Your task to perform on an android device: Open Wikipedia Image 0: 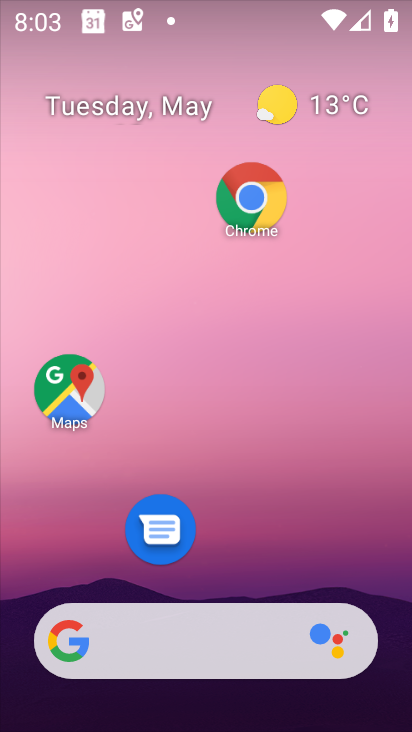
Step 0: drag from (342, 558) to (338, 337)
Your task to perform on an android device: Open Wikipedia Image 1: 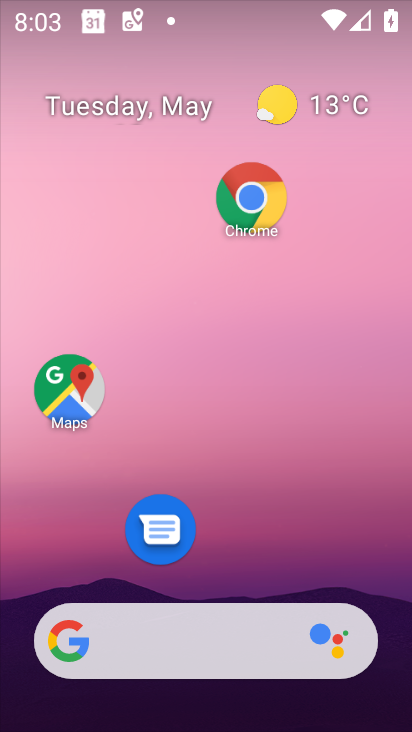
Step 1: drag from (256, 575) to (136, 12)
Your task to perform on an android device: Open Wikipedia Image 2: 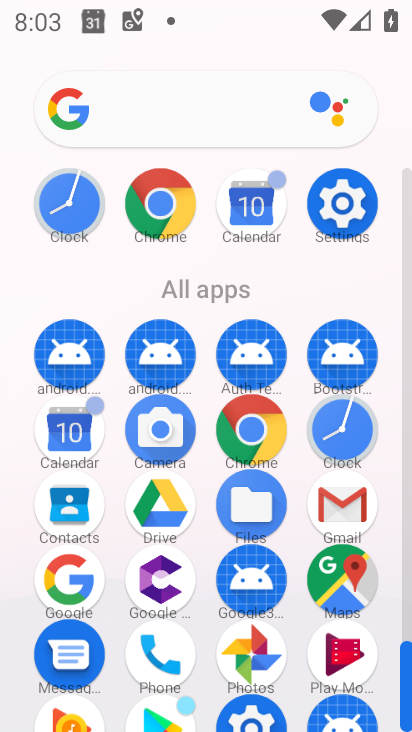
Step 2: click (321, 225)
Your task to perform on an android device: Open Wikipedia Image 3: 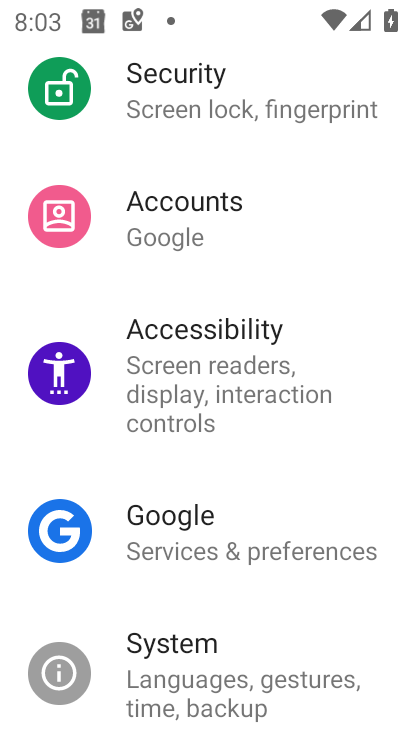
Step 3: press home button
Your task to perform on an android device: Open Wikipedia Image 4: 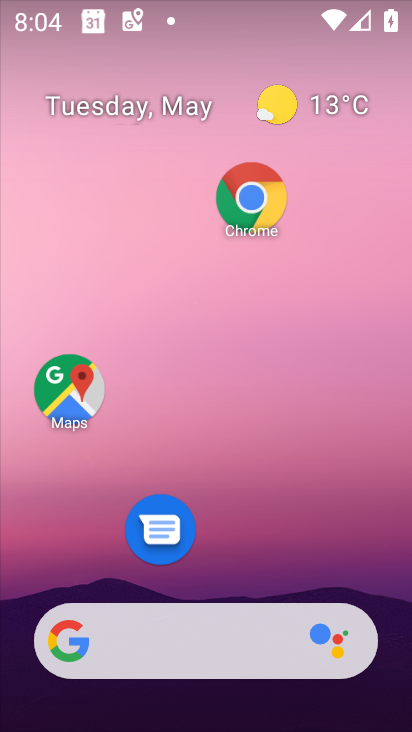
Step 4: click (272, 194)
Your task to perform on an android device: Open Wikipedia Image 5: 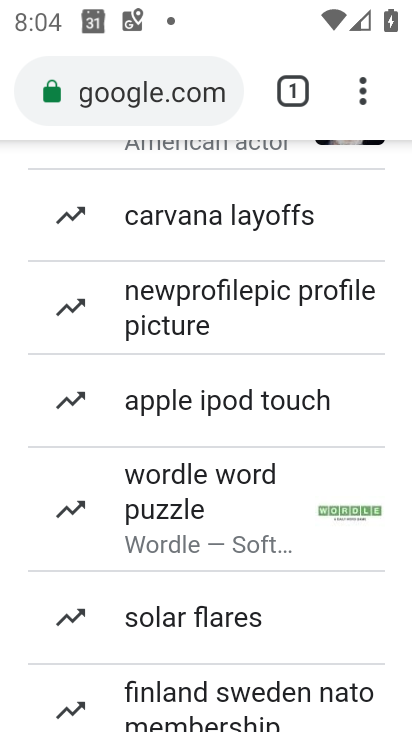
Step 5: click (186, 115)
Your task to perform on an android device: Open Wikipedia Image 6: 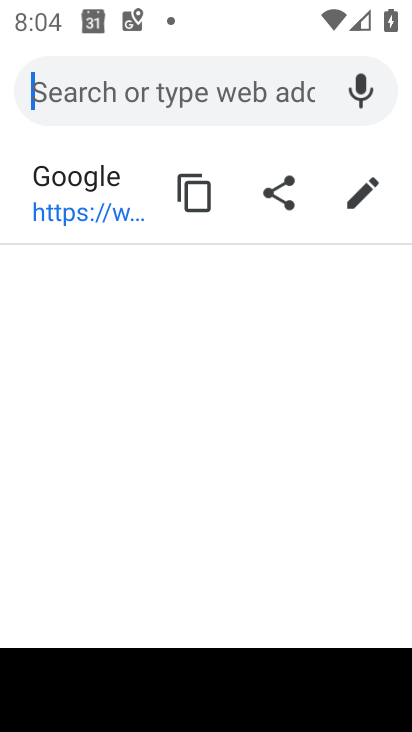
Step 6: type "wikipedia"
Your task to perform on an android device: Open Wikipedia Image 7: 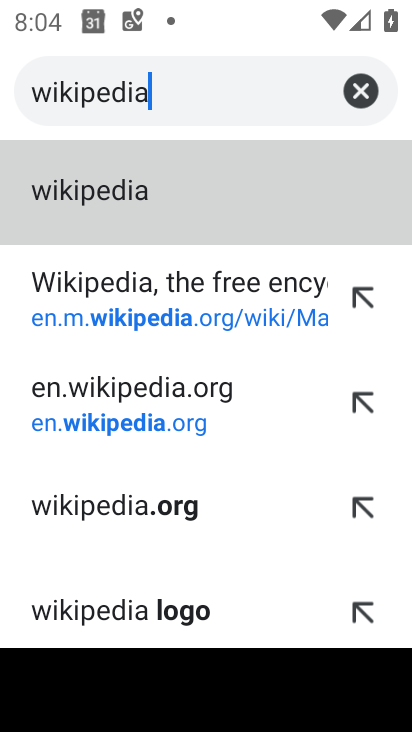
Step 7: click (98, 299)
Your task to perform on an android device: Open Wikipedia Image 8: 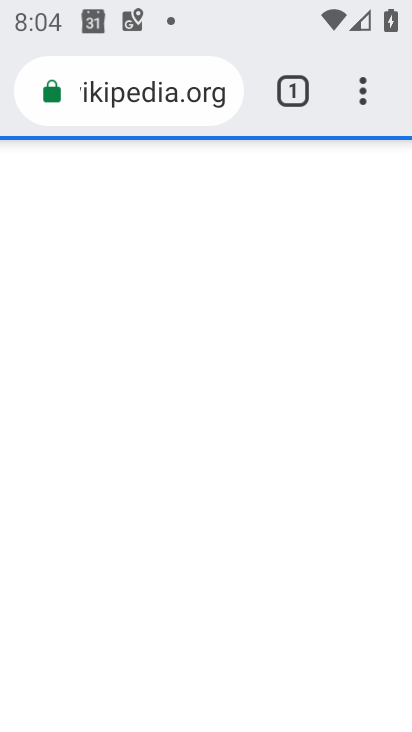
Step 8: task complete